Your task to perform on an android device: What's the weather? Image 0: 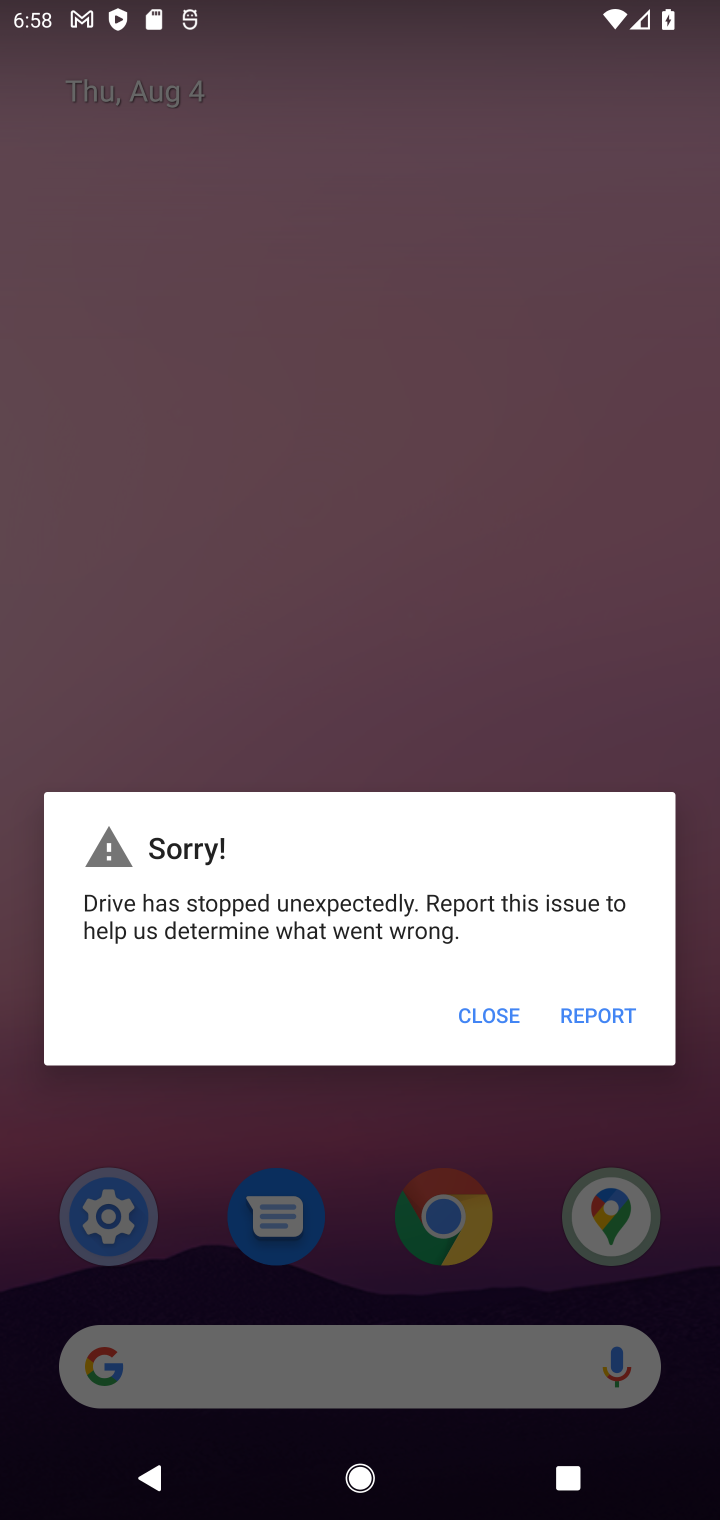
Step 0: drag from (362, 1296) to (314, 101)
Your task to perform on an android device: What's the weather? Image 1: 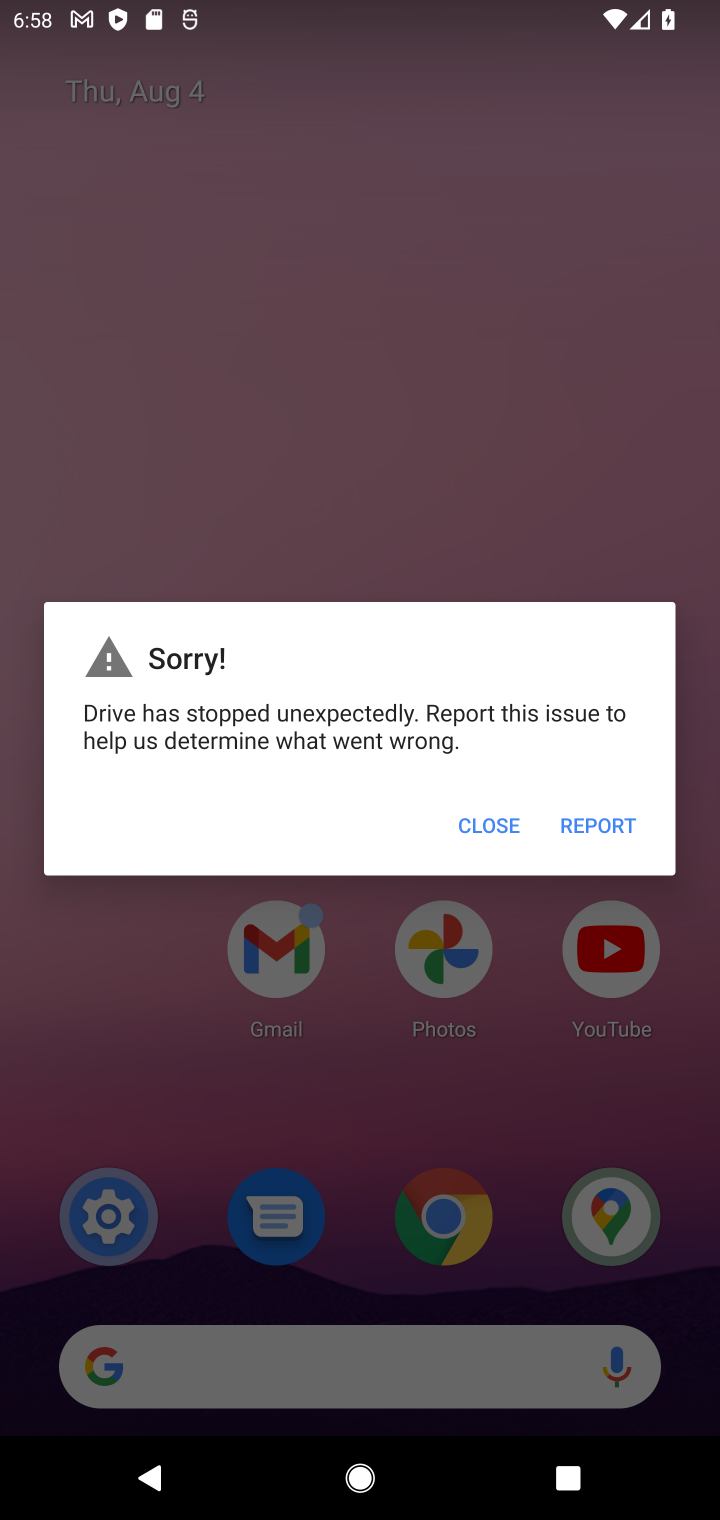
Step 1: press home button
Your task to perform on an android device: What's the weather? Image 2: 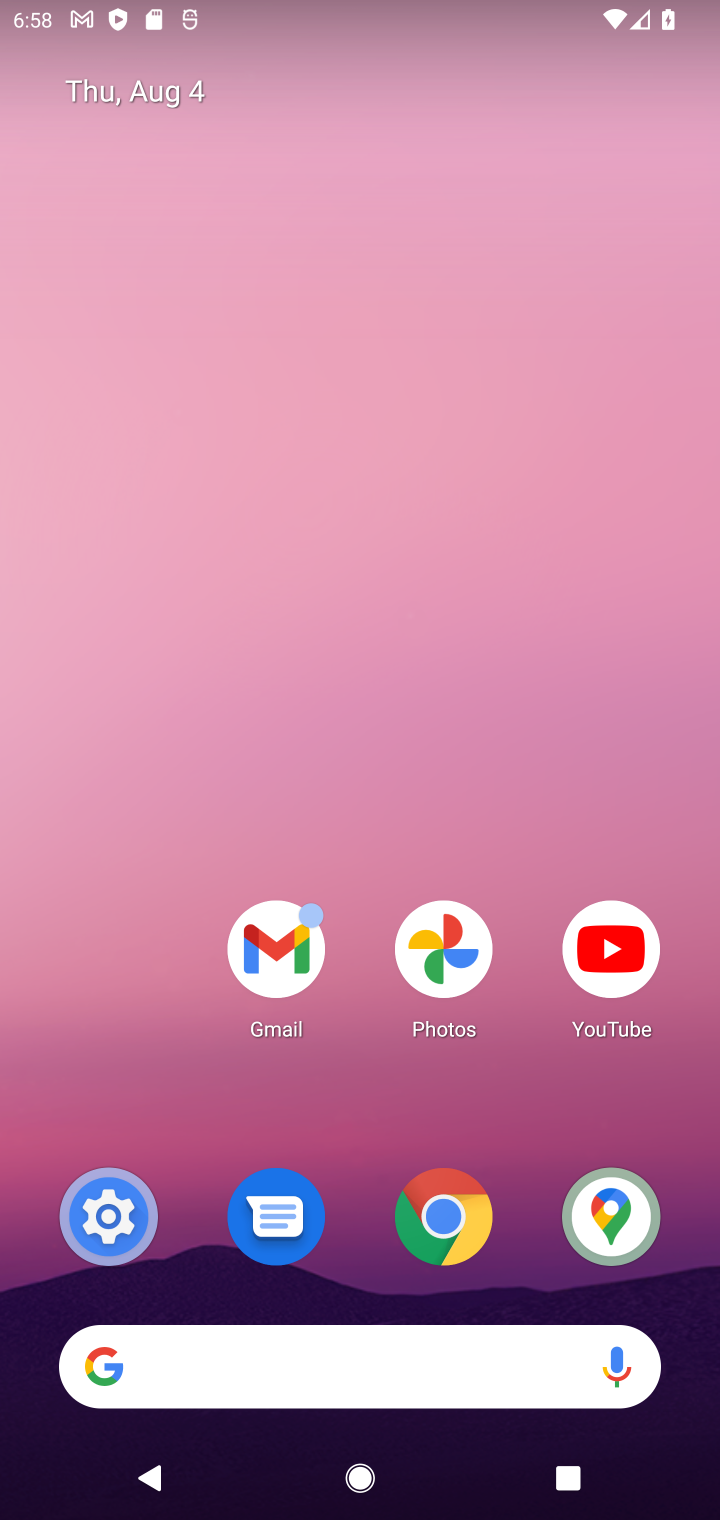
Step 2: drag from (309, 762) to (285, 101)
Your task to perform on an android device: What's the weather? Image 3: 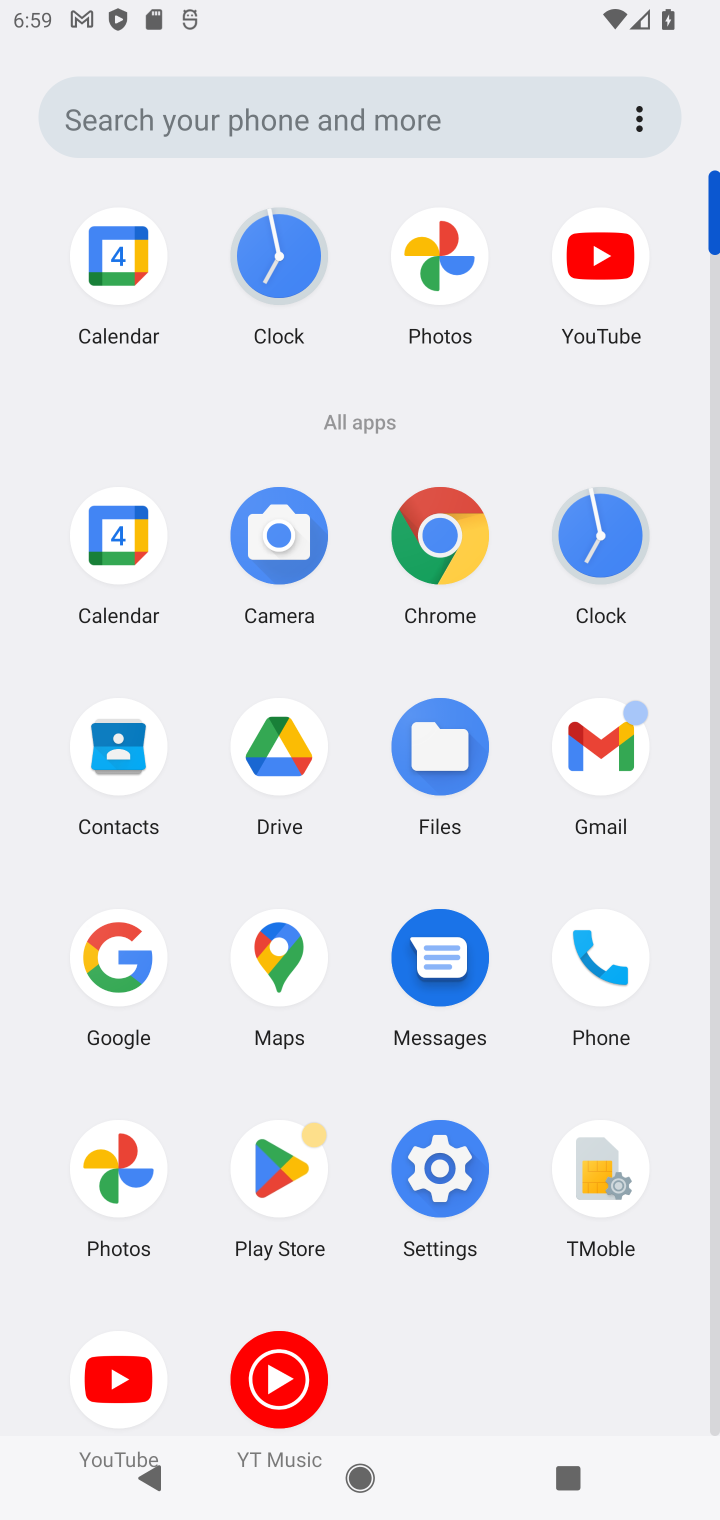
Step 3: click (111, 953)
Your task to perform on an android device: What's the weather? Image 4: 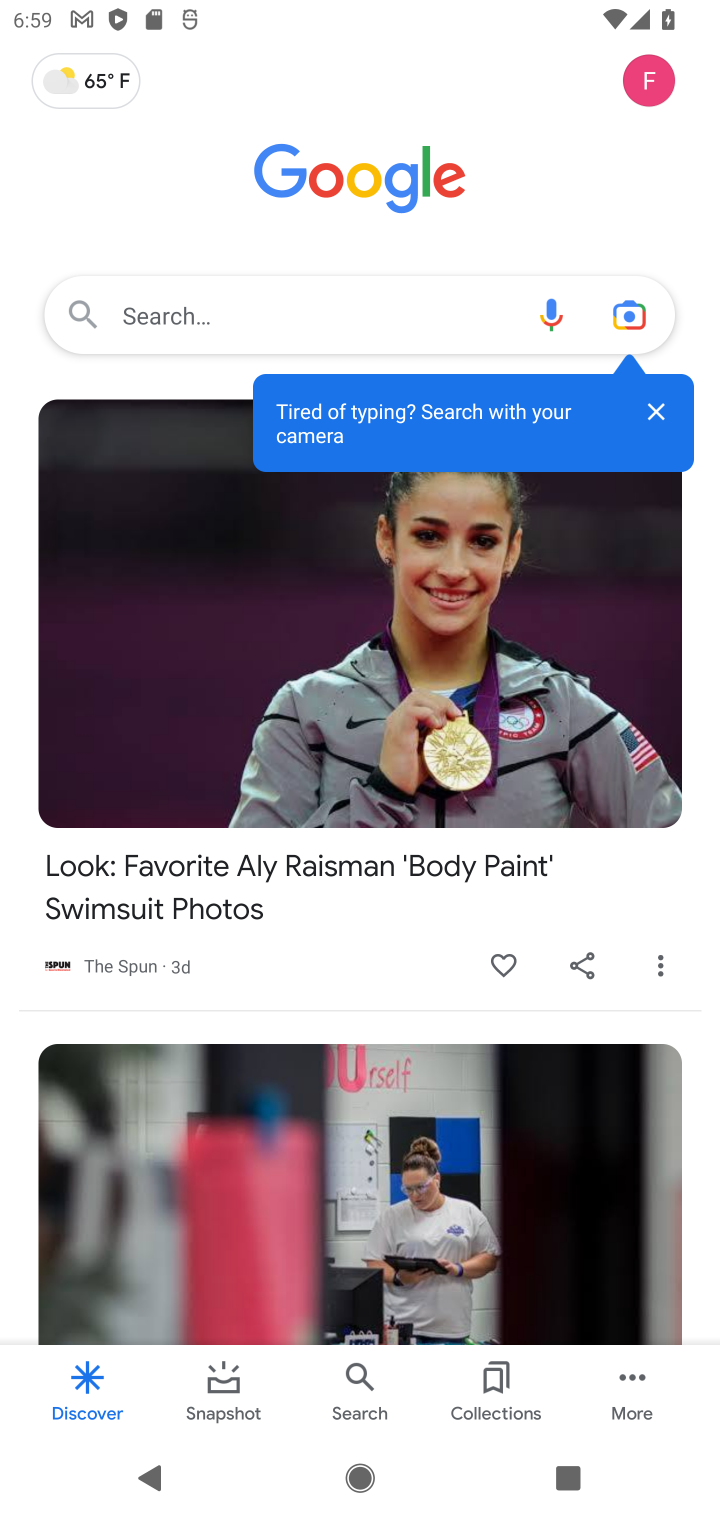
Step 4: click (239, 315)
Your task to perform on an android device: What's the weather? Image 5: 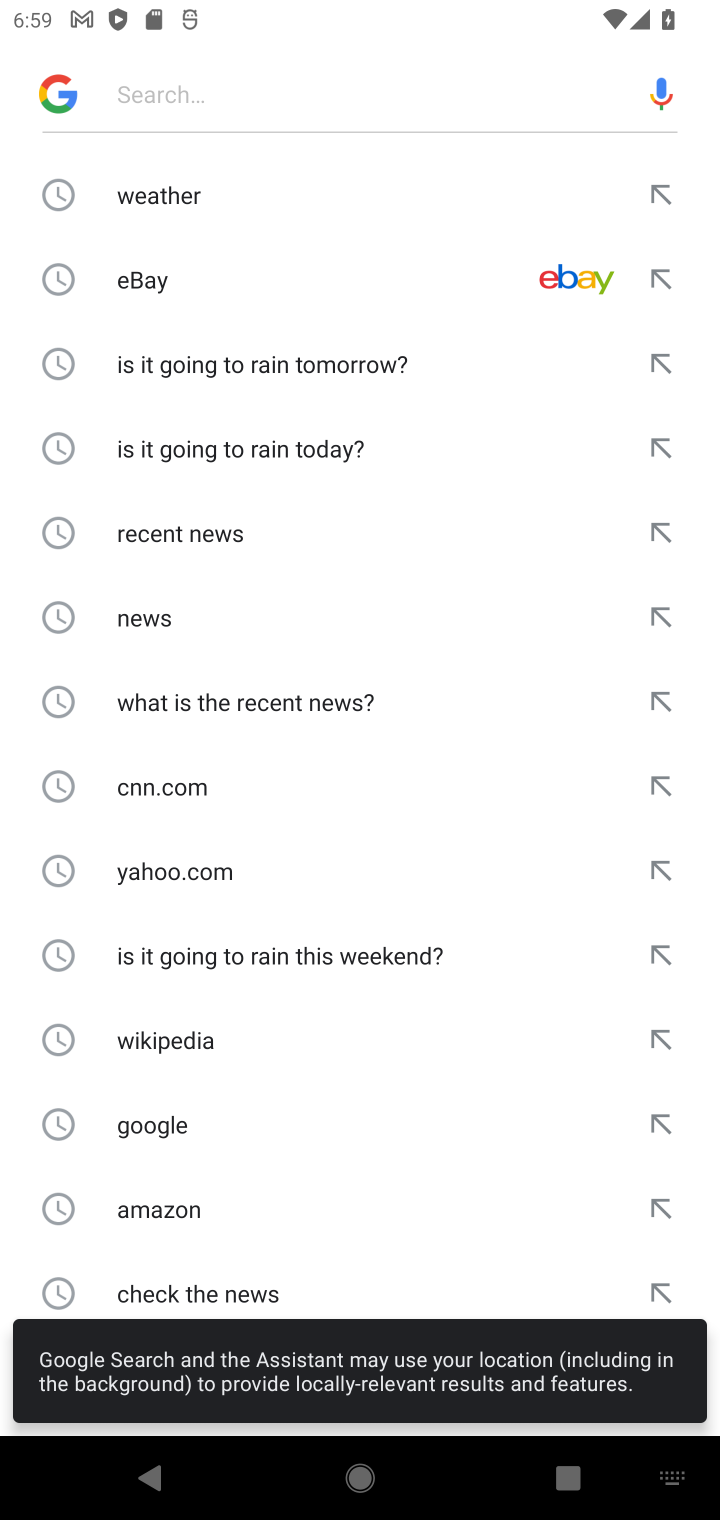
Step 5: click (156, 186)
Your task to perform on an android device: What's the weather? Image 6: 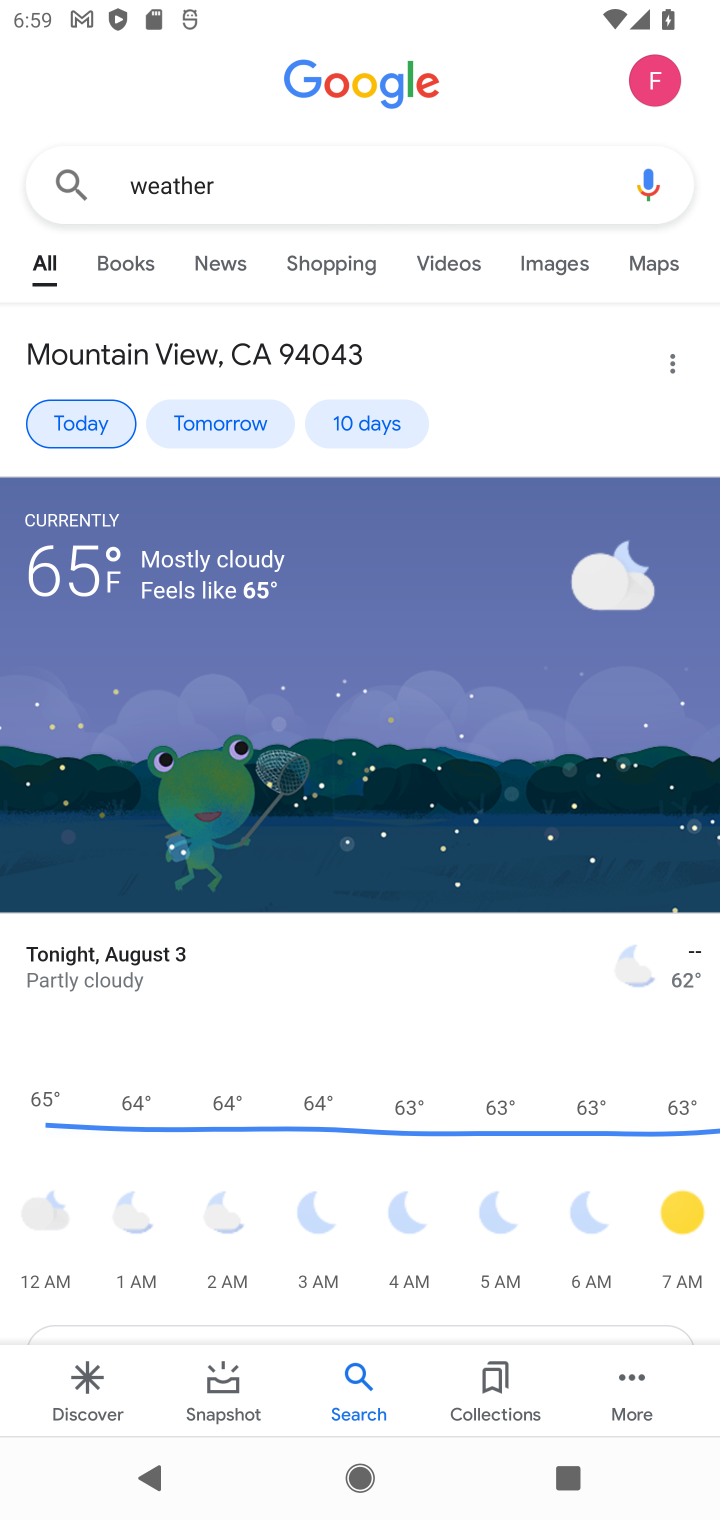
Step 6: click (90, 422)
Your task to perform on an android device: What's the weather? Image 7: 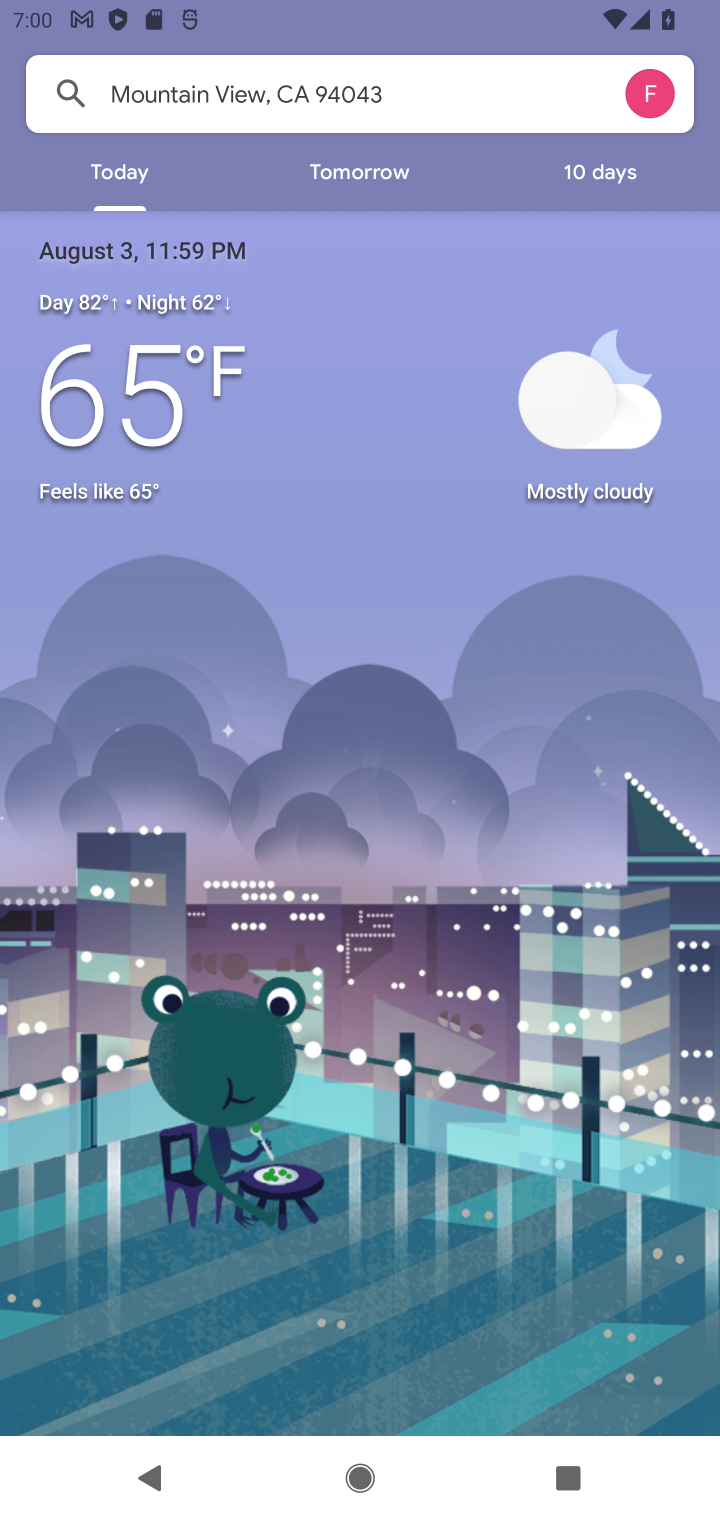
Step 7: task complete